Your task to perform on an android device: Search for sushi restaurants on Maps Image 0: 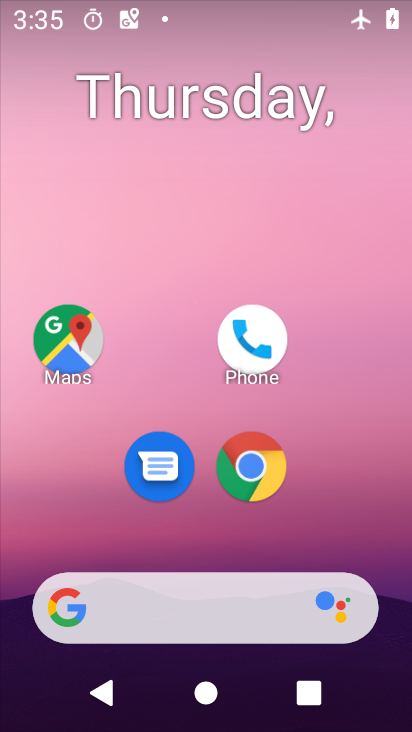
Step 0: drag from (180, 517) to (168, 113)
Your task to perform on an android device: Search for sushi restaurants on Maps Image 1: 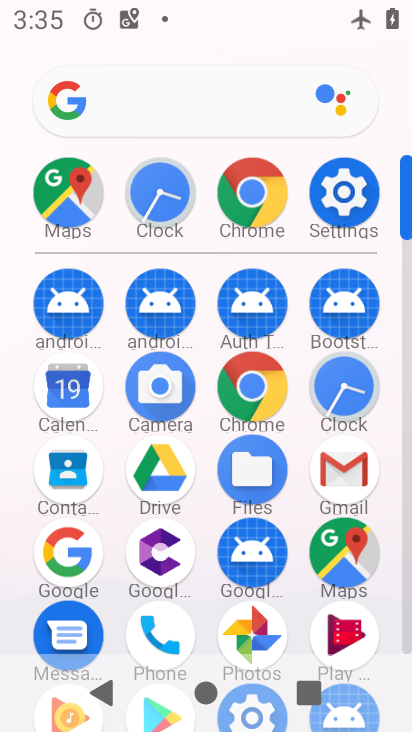
Step 1: click (356, 550)
Your task to perform on an android device: Search for sushi restaurants on Maps Image 2: 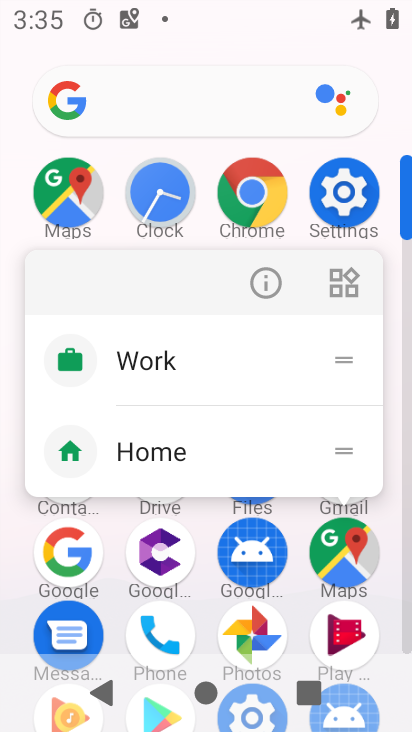
Step 2: click (253, 291)
Your task to perform on an android device: Search for sushi restaurants on Maps Image 3: 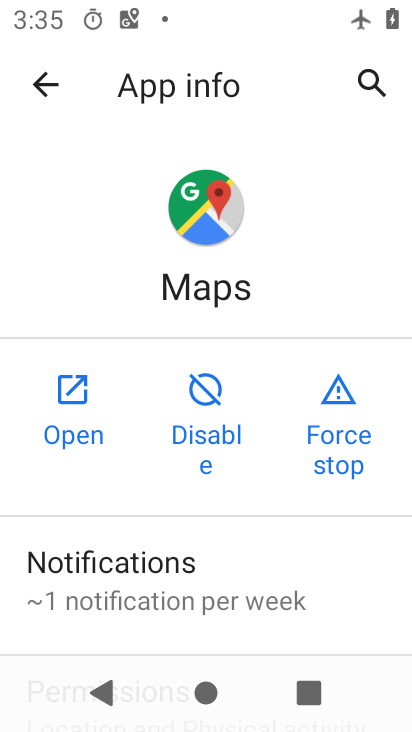
Step 3: click (80, 400)
Your task to perform on an android device: Search for sushi restaurants on Maps Image 4: 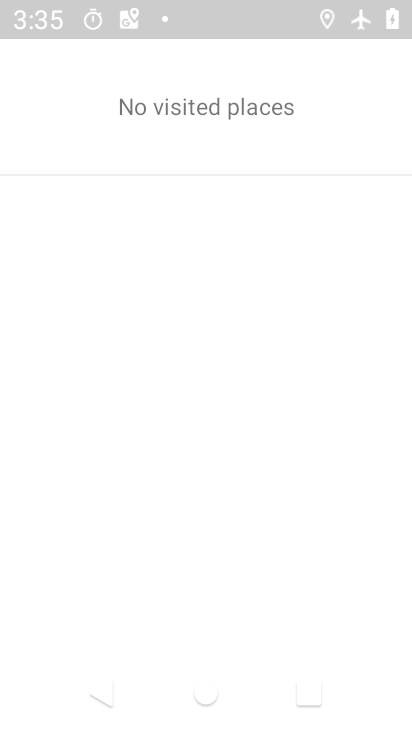
Step 4: click (319, 511)
Your task to perform on an android device: Search for sushi restaurants on Maps Image 5: 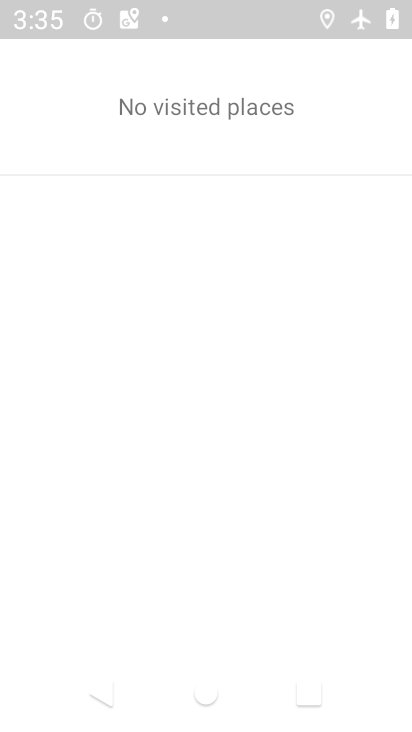
Step 5: press back button
Your task to perform on an android device: Search for sushi restaurants on Maps Image 6: 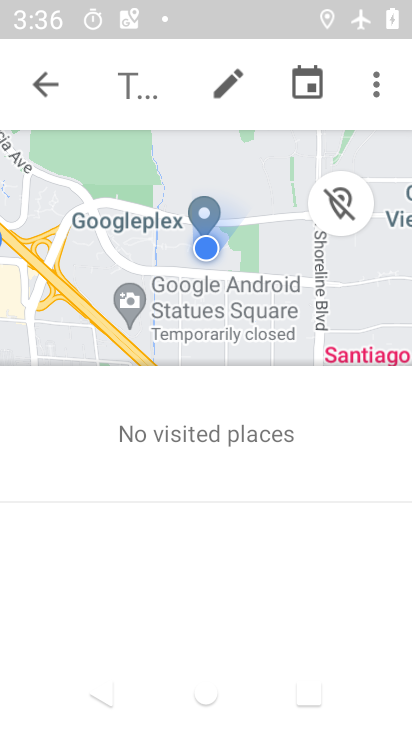
Step 6: press back button
Your task to perform on an android device: Search for sushi restaurants on Maps Image 7: 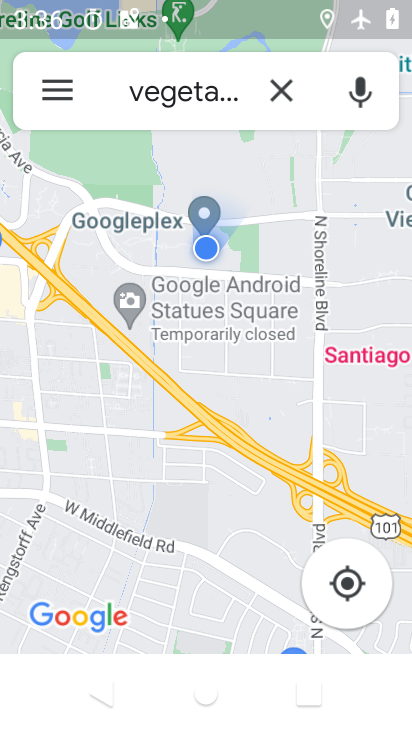
Step 7: click (276, 97)
Your task to perform on an android device: Search for sushi restaurants on Maps Image 8: 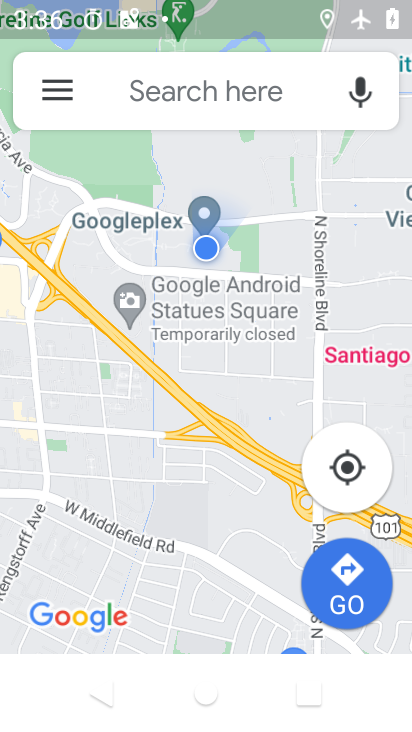
Step 8: click (194, 104)
Your task to perform on an android device: Search for sushi restaurants on Maps Image 9: 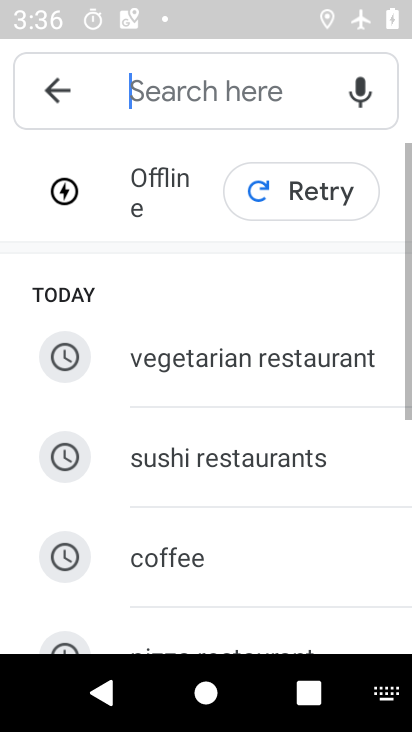
Step 9: drag from (239, 541) to (257, 410)
Your task to perform on an android device: Search for sushi restaurants on Maps Image 10: 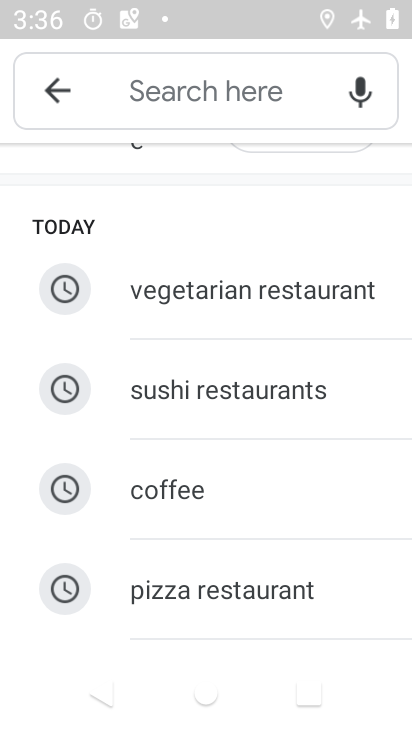
Step 10: click (168, 371)
Your task to perform on an android device: Search for sushi restaurants on Maps Image 11: 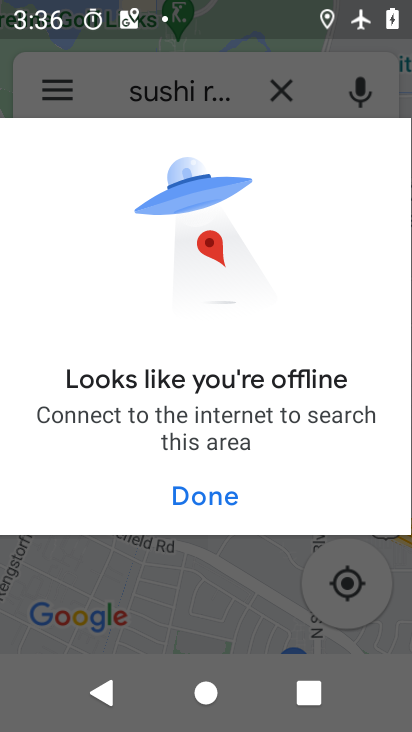
Step 11: drag from (258, 552) to (389, 126)
Your task to perform on an android device: Search for sushi restaurants on Maps Image 12: 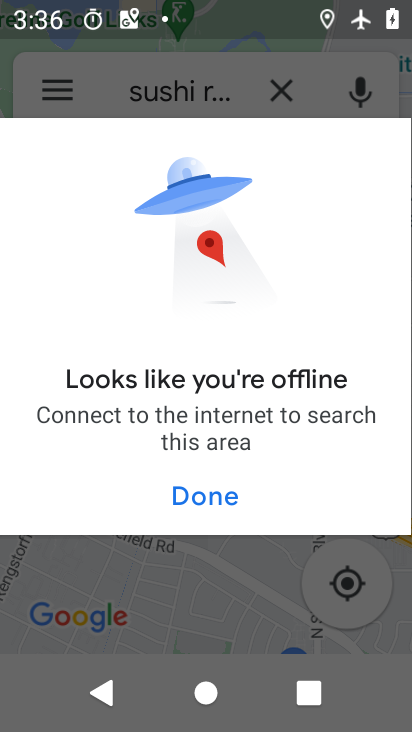
Step 12: click (201, 474)
Your task to perform on an android device: Search for sushi restaurants on Maps Image 13: 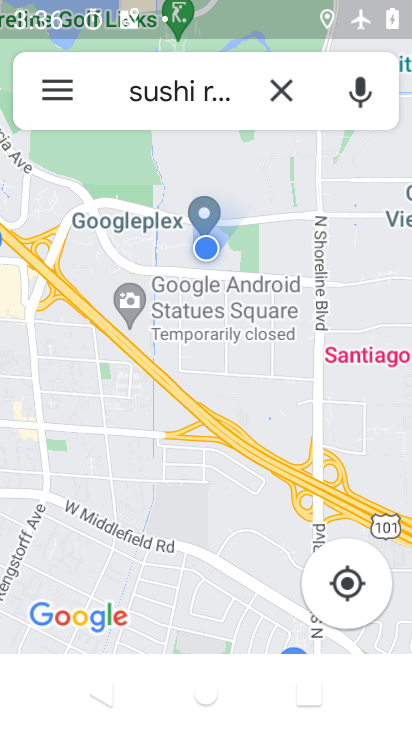
Step 13: task complete